Your task to perform on an android device: check the backup settings in the google photos Image 0: 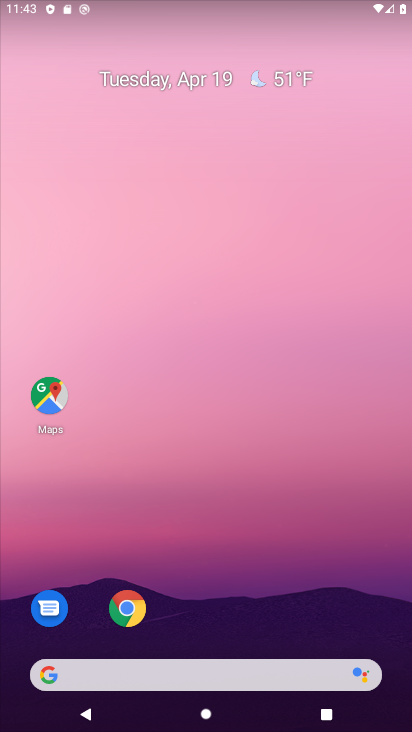
Step 0: drag from (197, 545) to (154, 66)
Your task to perform on an android device: check the backup settings in the google photos Image 1: 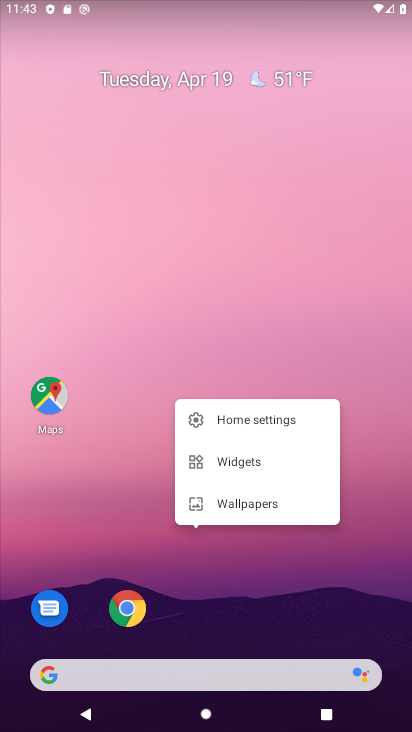
Step 1: drag from (186, 545) to (135, 5)
Your task to perform on an android device: check the backup settings in the google photos Image 2: 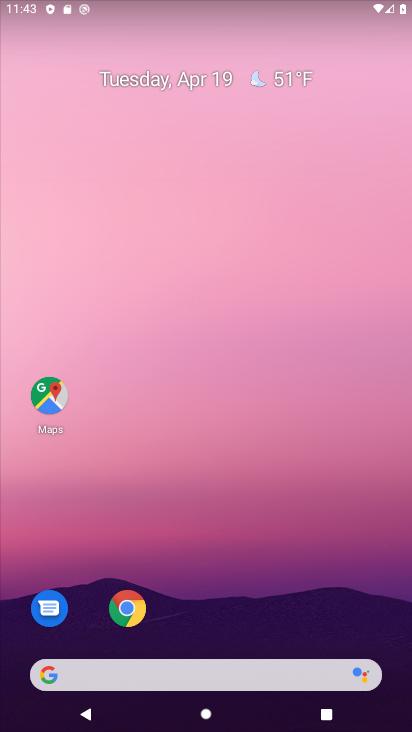
Step 2: drag from (247, 619) to (175, 75)
Your task to perform on an android device: check the backup settings in the google photos Image 3: 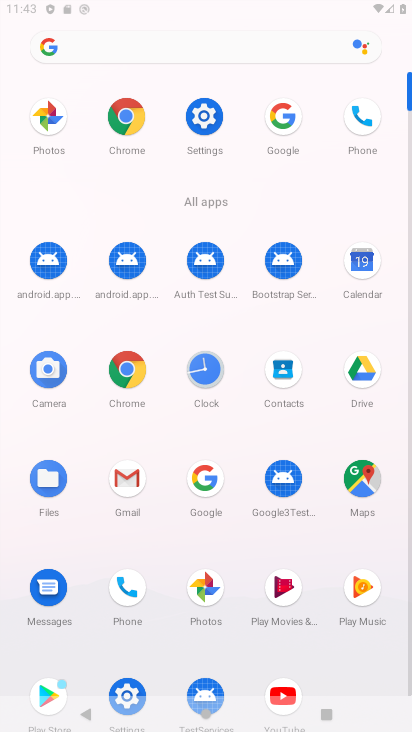
Step 3: click (208, 580)
Your task to perform on an android device: check the backup settings in the google photos Image 4: 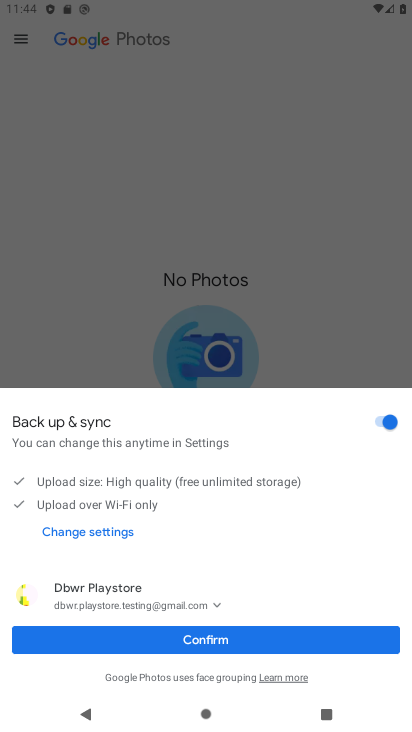
Step 4: click (106, 536)
Your task to perform on an android device: check the backup settings in the google photos Image 5: 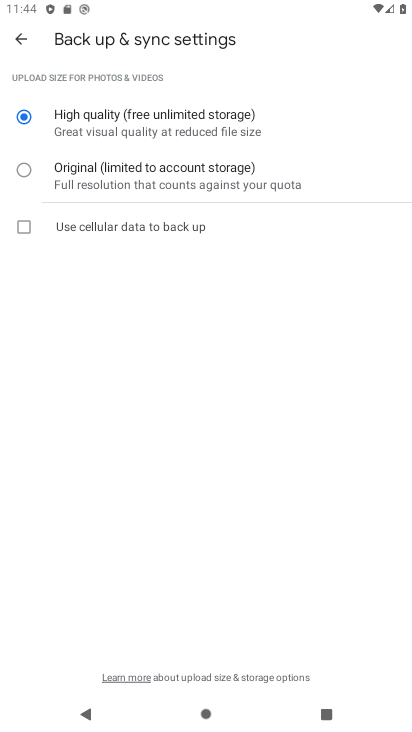
Step 5: task complete